Your task to perform on an android device: turn off wifi Image 0: 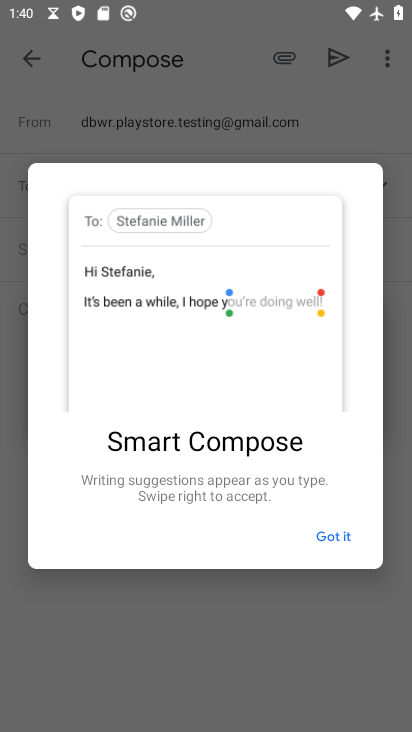
Step 0: press home button
Your task to perform on an android device: turn off wifi Image 1: 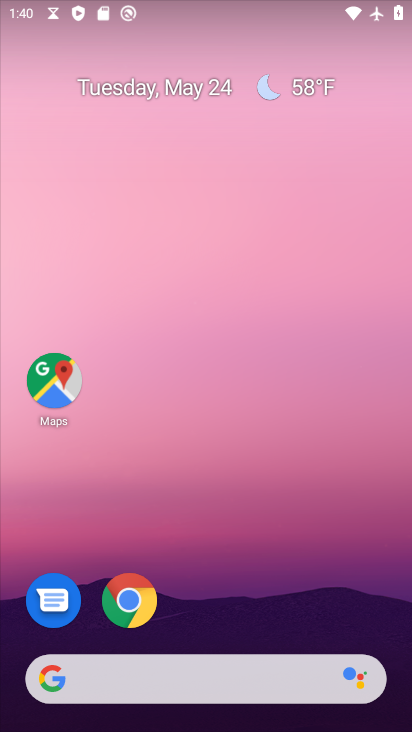
Step 1: drag from (286, 579) to (202, 23)
Your task to perform on an android device: turn off wifi Image 2: 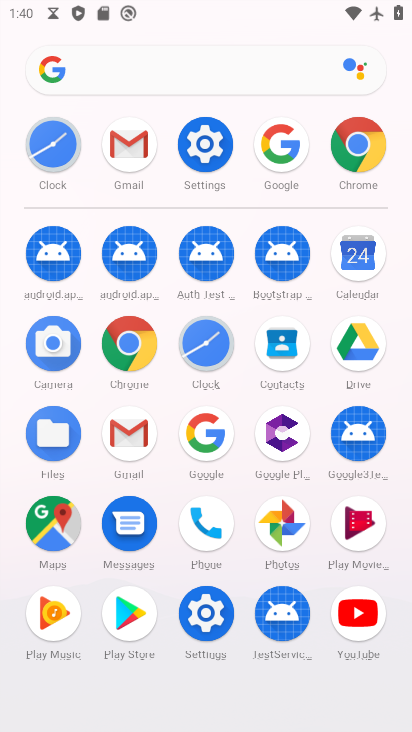
Step 2: click (205, 154)
Your task to perform on an android device: turn off wifi Image 3: 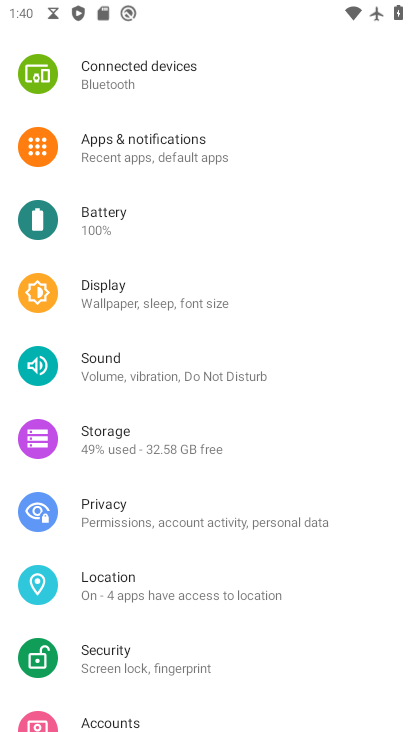
Step 3: drag from (231, 124) to (242, 615)
Your task to perform on an android device: turn off wifi Image 4: 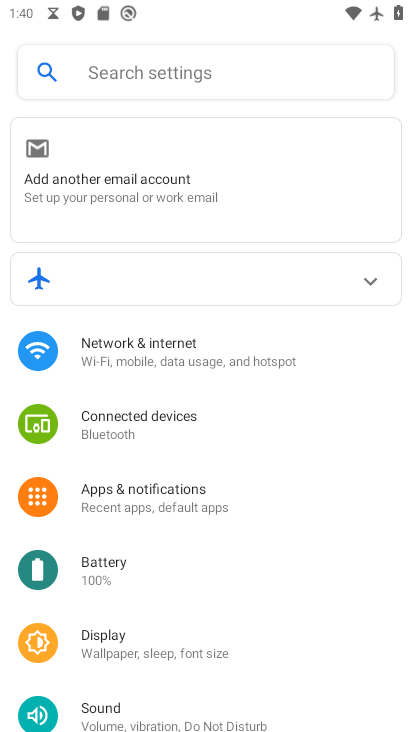
Step 4: click (189, 344)
Your task to perform on an android device: turn off wifi Image 5: 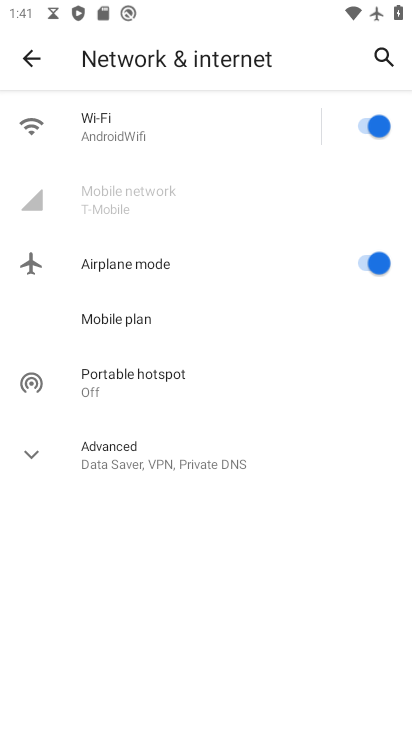
Step 5: click (372, 125)
Your task to perform on an android device: turn off wifi Image 6: 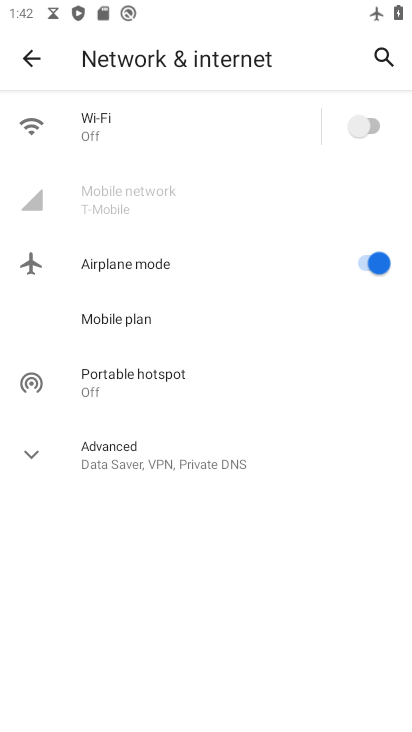
Step 6: task complete